Your task to perform on an android device: Do I have any events today? Image 0: 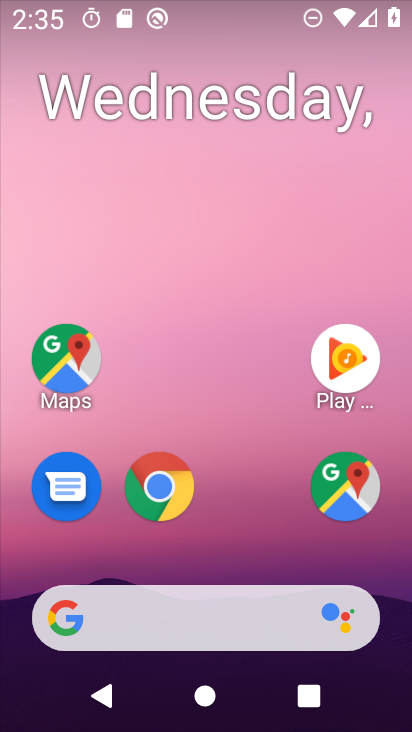
Step 0: drag from (257, 532) to (251, 167)
Your task to perform on an android device: Do I have any events today? Image 1: 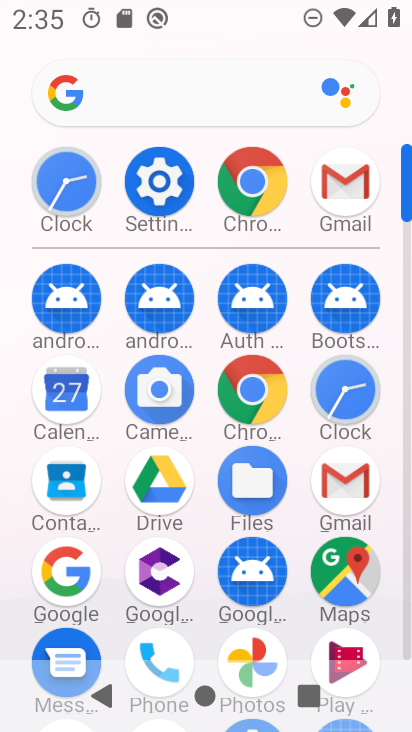
Step 1: click (66, 398)
Your task to perform on an android device: Do I have any events today? Image 2: 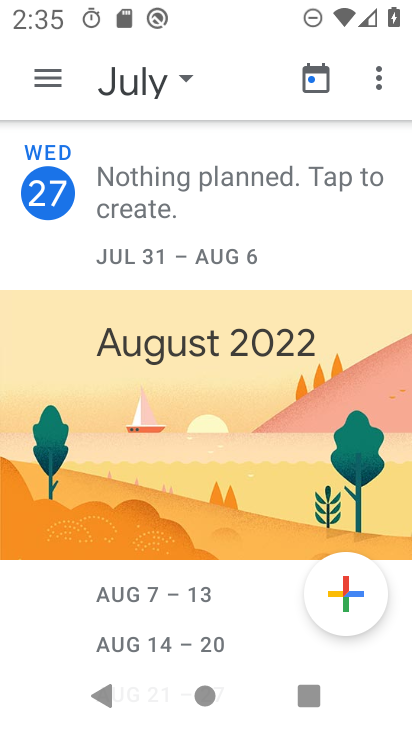
Step 2: task complete